Your task to perform on an android device: star an email in the gmail app Image 0: 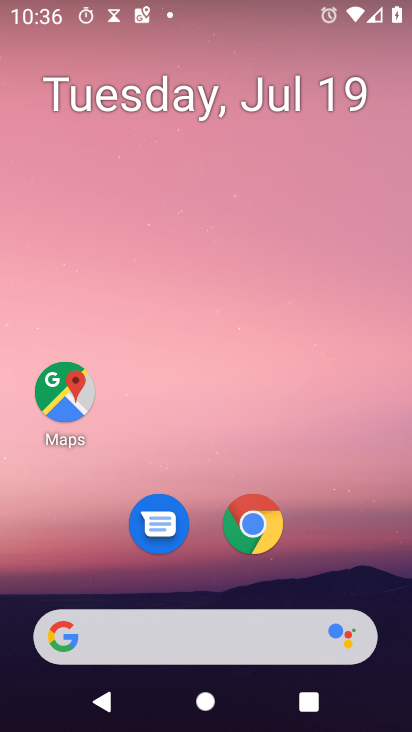
Step 0: drag from (234, 629) to (312, 7)
Your task to perform on an android device: star an email in the gmail app Image 1: 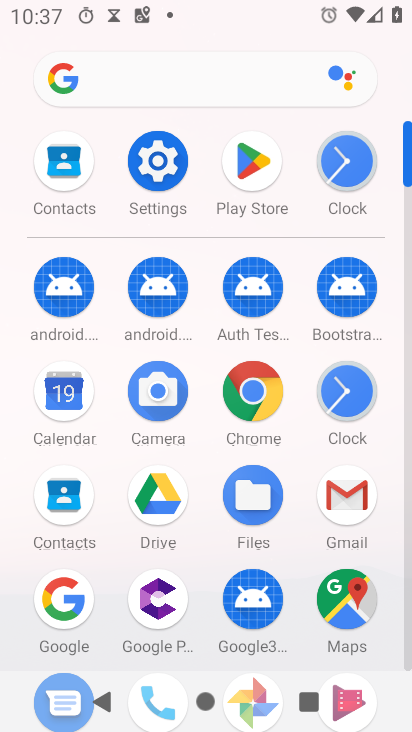
Step 1: click (343, 491)
Your task to perform on an android device: star an email in the gmail app Image 2: 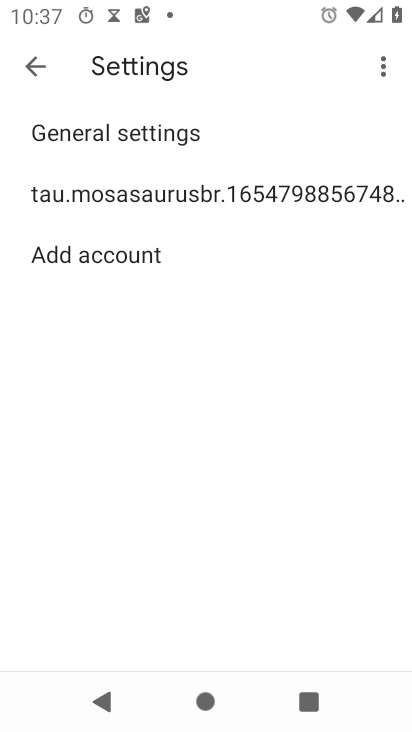
Step 2: click (31, 62)
Your task to perform on an android device: star an email in the gmail app Image 3: 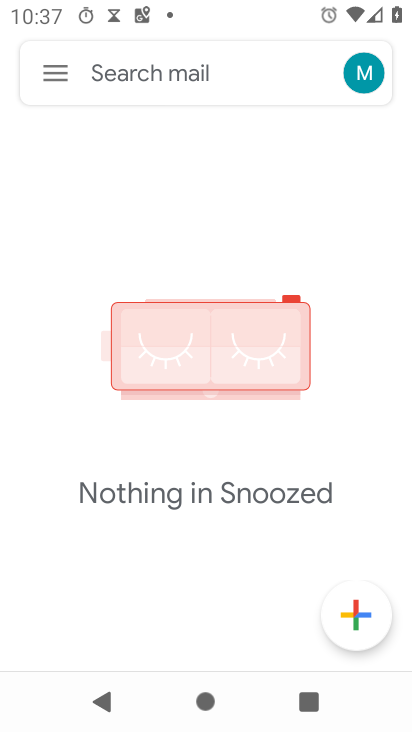
Step 3: click (58, 72)
Your task to perform on an android device: star an email in the gmail app Image 4: 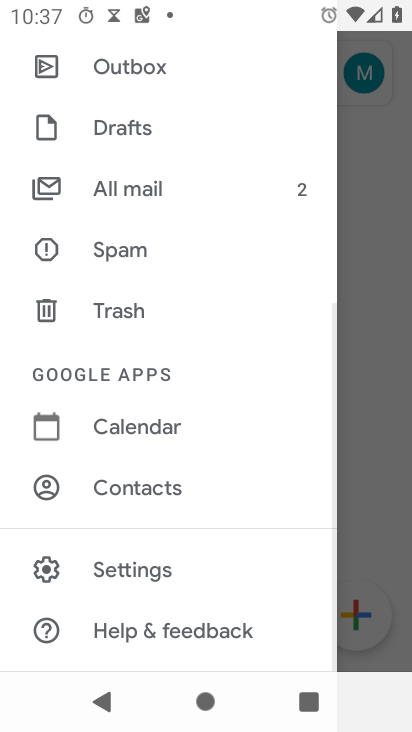
Step 4: drag from (234, 82) to (202, 496)
Your task to perform on an android device: star an email in the gmail app Image 5: 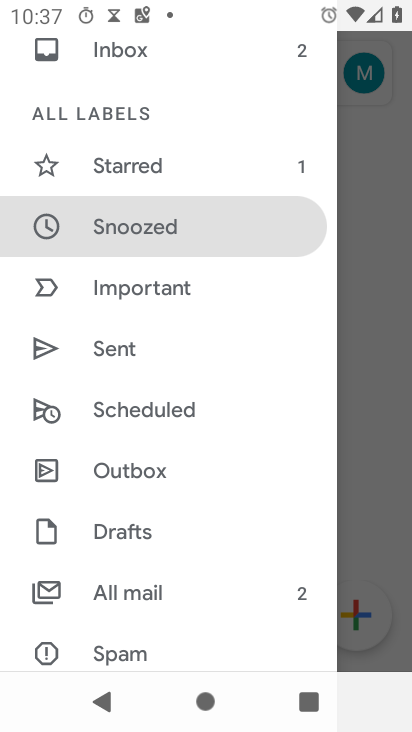
Step 5: drag from (206, 101) to (187, 507)
Your task to perform on an android device: star an email in the gmail app Image 6: 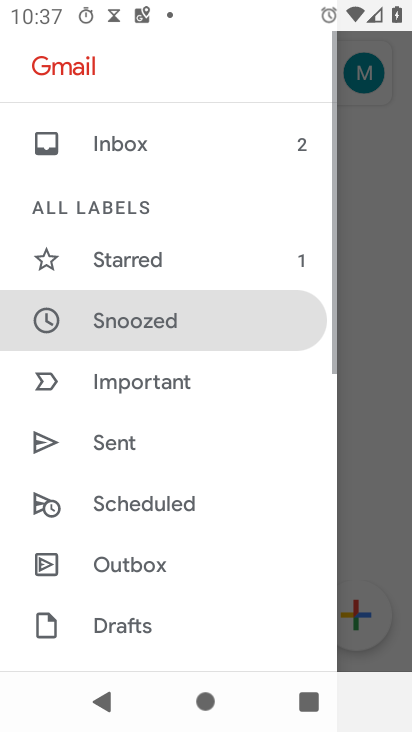
Step 6: click (131, 146)
Your task to perform on an android device: star an email in the gmail app Image 7: 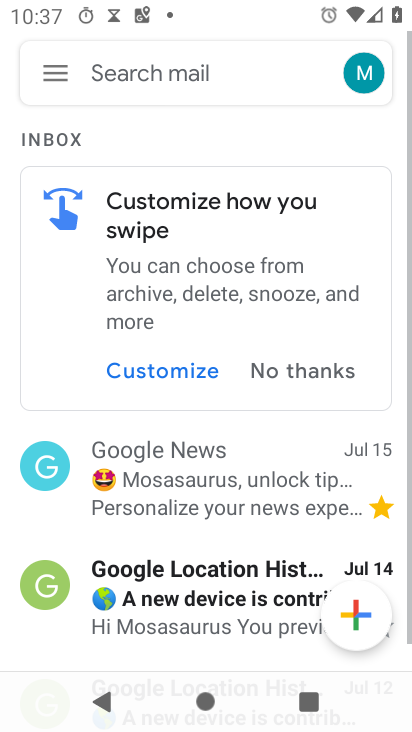
Step 7: drag from (248, 543) to (355, 199)
Your task to perform on an android device: star an email in the gmail app Image 8: 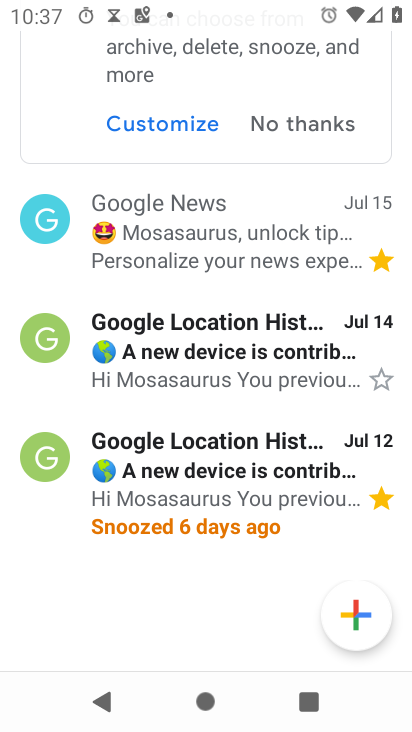
Step 8: click (47, 337)
Your task to perform on an android device: star an email in the gmail app Image 9: 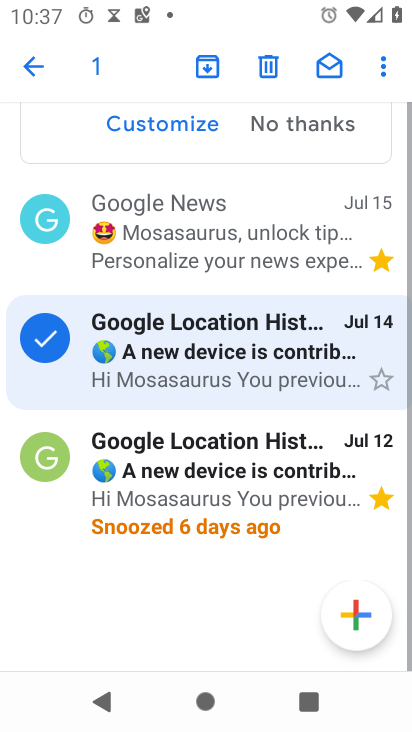
Step 9: click (383, 73)
Your task to perform on an android device: star an email in the gmail app Image 10: 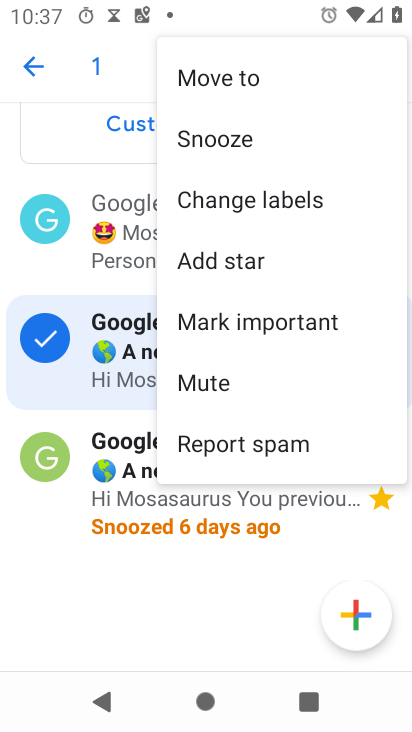
Step 10: click (245, 264)
Your task to perform on an android device: star an email in the gmail app Image 11: 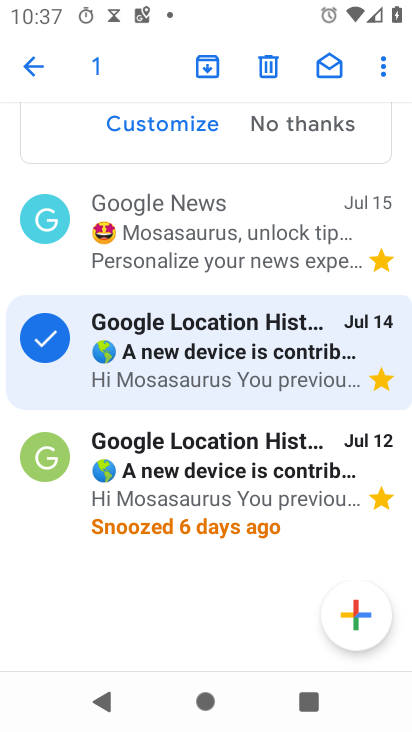
Step 11: click (37, 61)
Your task to perform on an android device: star an email in the gmail app Image 12: 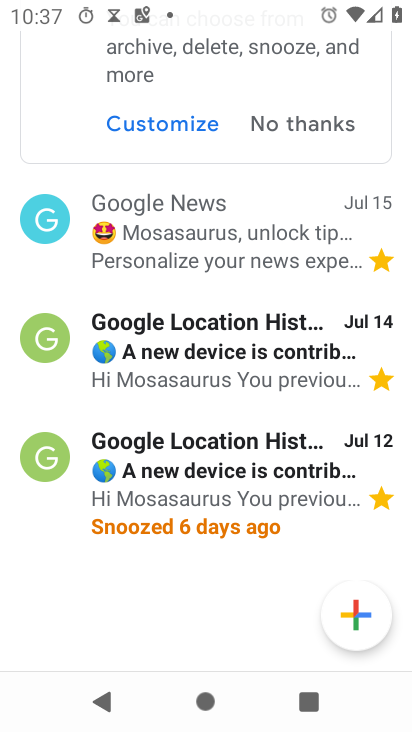
Step 12: task complete